Your task to perform on an android device: Show me the alarms in the clock app Image 0: 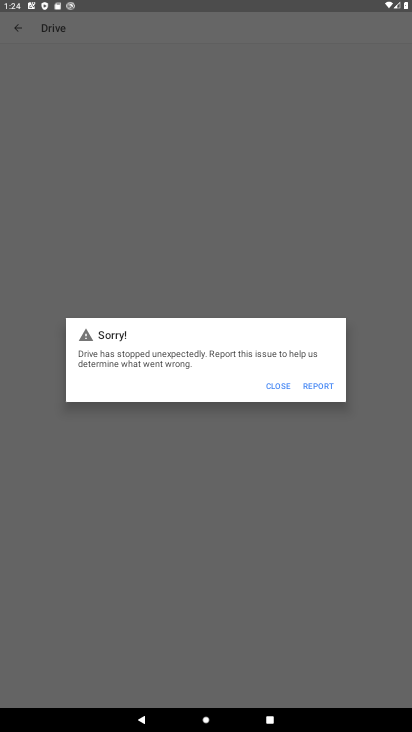
Step 0: press home button
Your task to perform on an android device: Show me the alarms in the clock app Image 1: 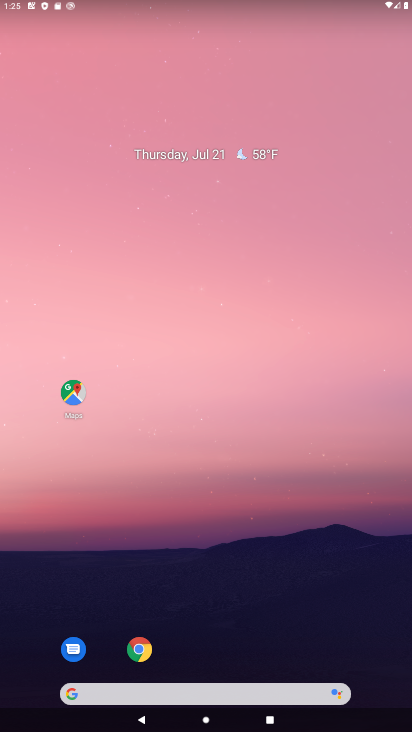
Step 1: drag from (271, 649) to (277, 199)
Your task to perform on an android device: Show me the alarms in the clock app Image 2: 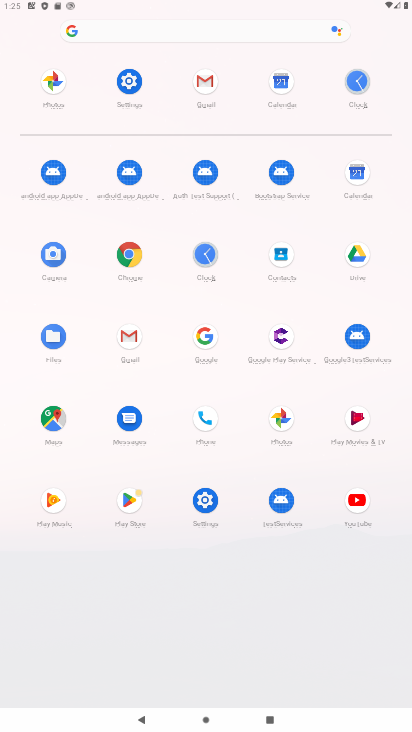
Step 2: click (346, 99)
Your task to perform on an android device: Show me the alarms in the clock app Image 3: 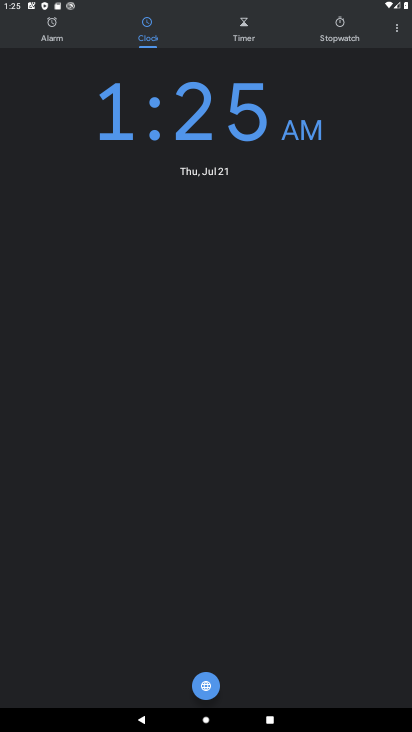
Step 3: task complete